Your task to perform on an android device: Go to Google Image 0: 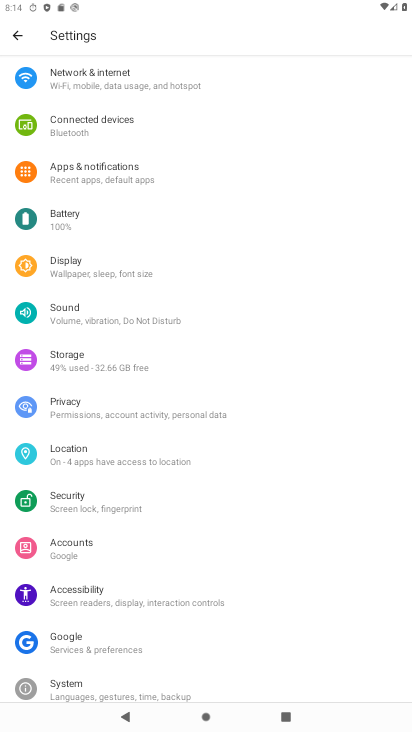
Step 0: press home button
Your task to perform on an android device: Go to Google Image 1: 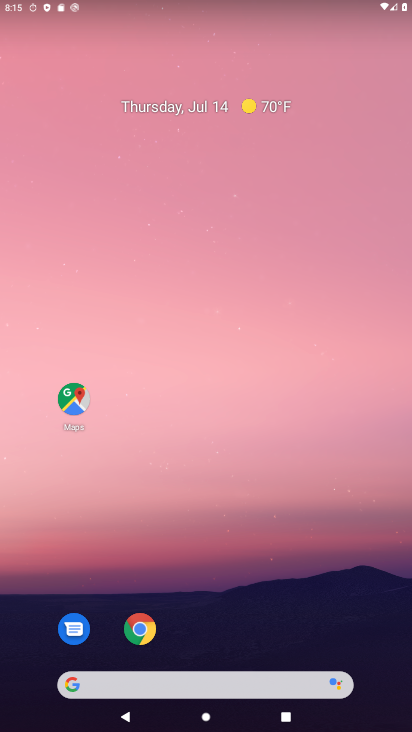
Step 1: drag from (138, 534) to (119, 9)
Your task to perform on an android device: Go to Google Image 2: 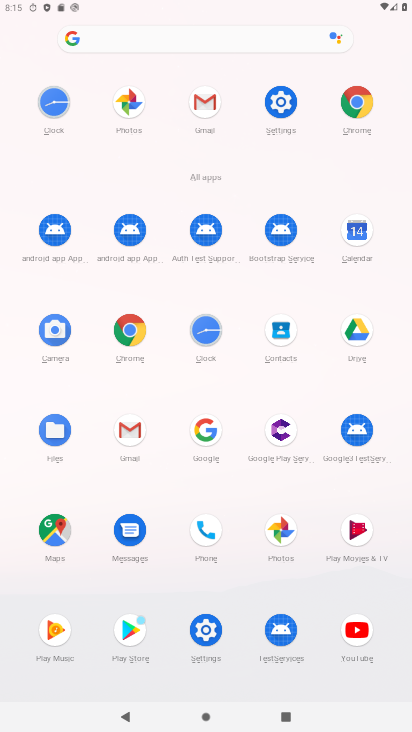
Step 2: click (198, 431)
Your task to perform on an android device: Go to Google Image 3: 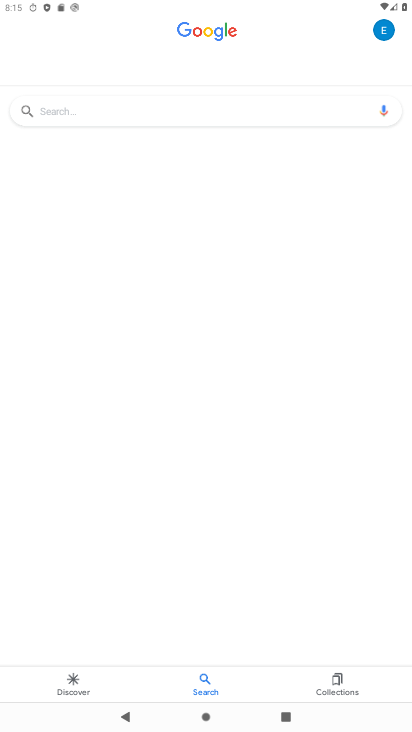
Step 3: task complete